Your task to perform on an android device: turn on translation in the chrome app Image 0: 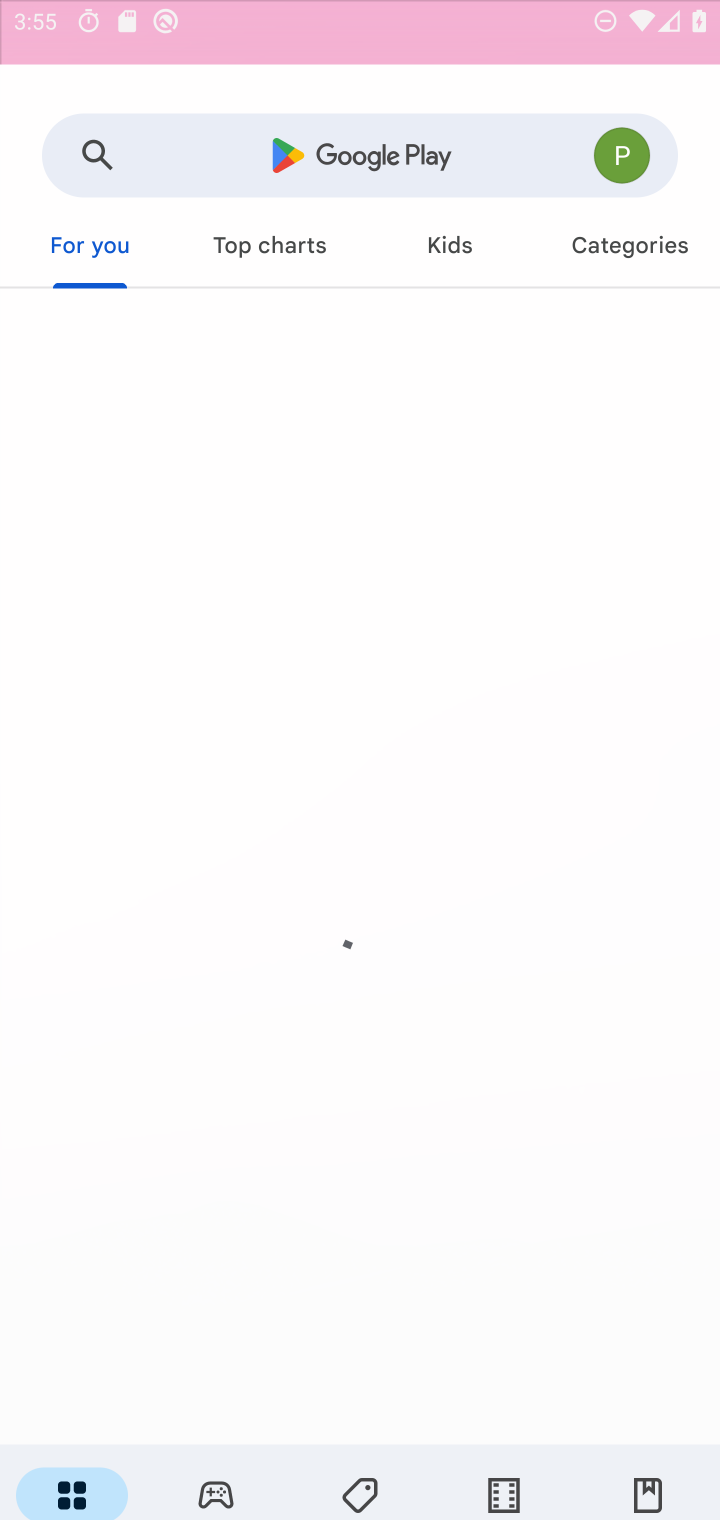
Step 0: click (649, 86)
Your task to perform on an android device: turn on translation in the chrome app Image 1: 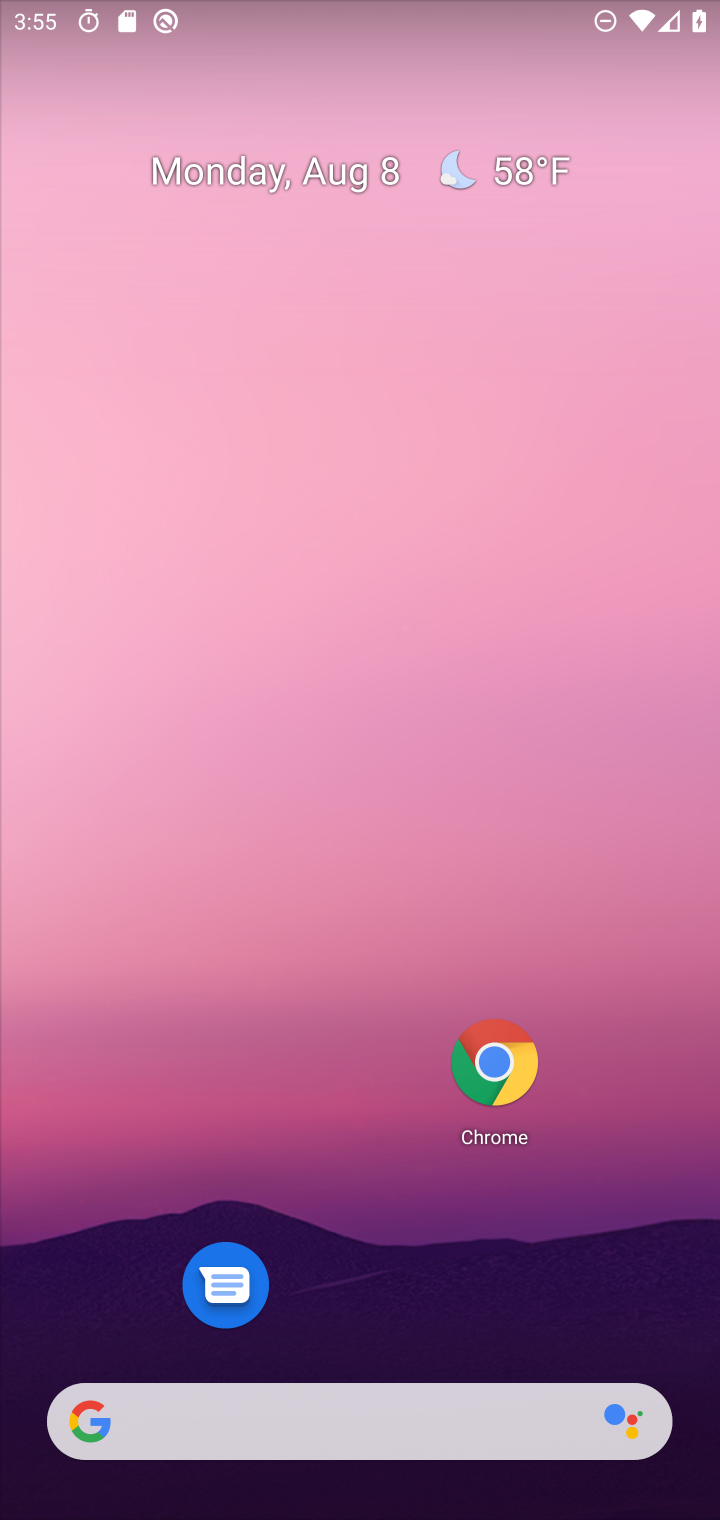
Step 1: click (499, 1057)
Your task to perform on an android device: turn on translation in the chrome app Image 2: 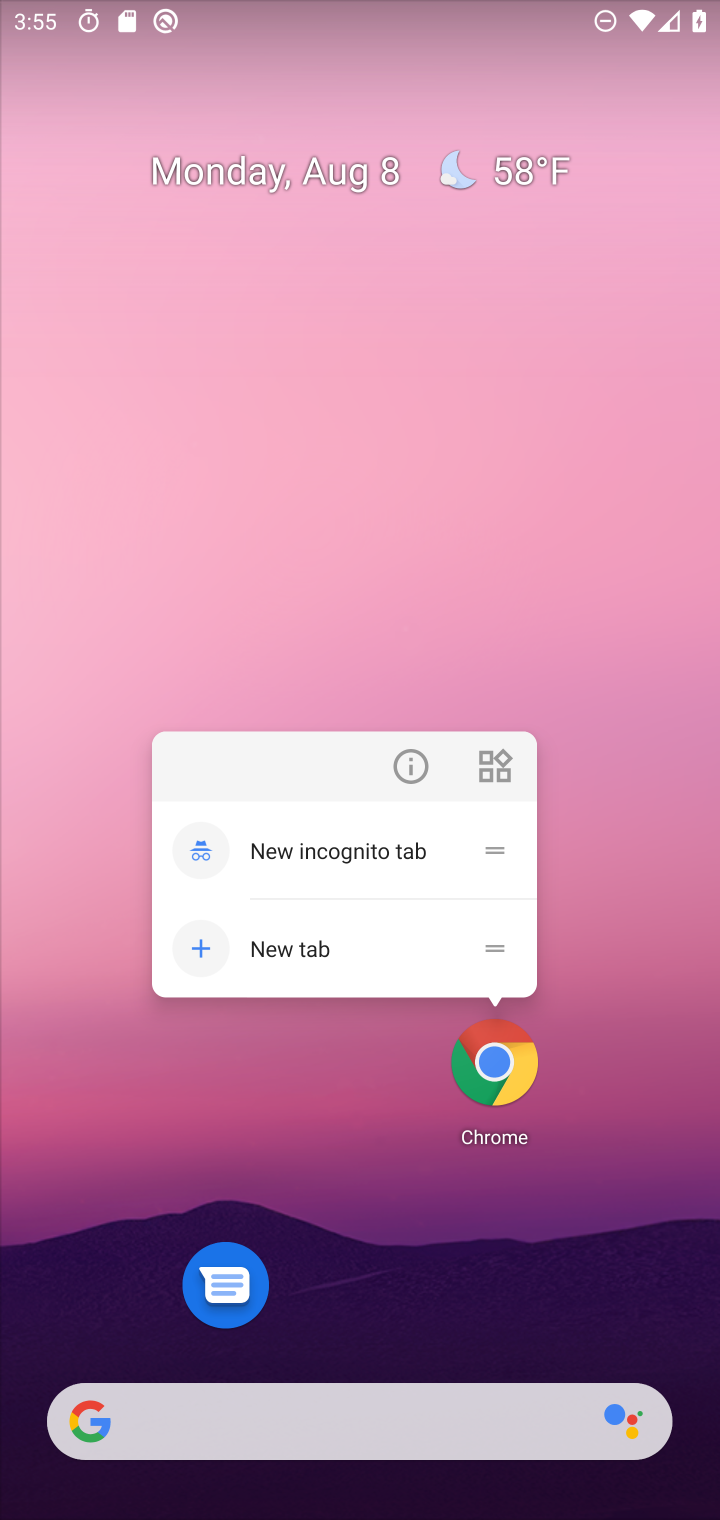
Step 2: click (498, 1051)
Your task to perform on an android device: turn on translation in the chrome app Image 3: 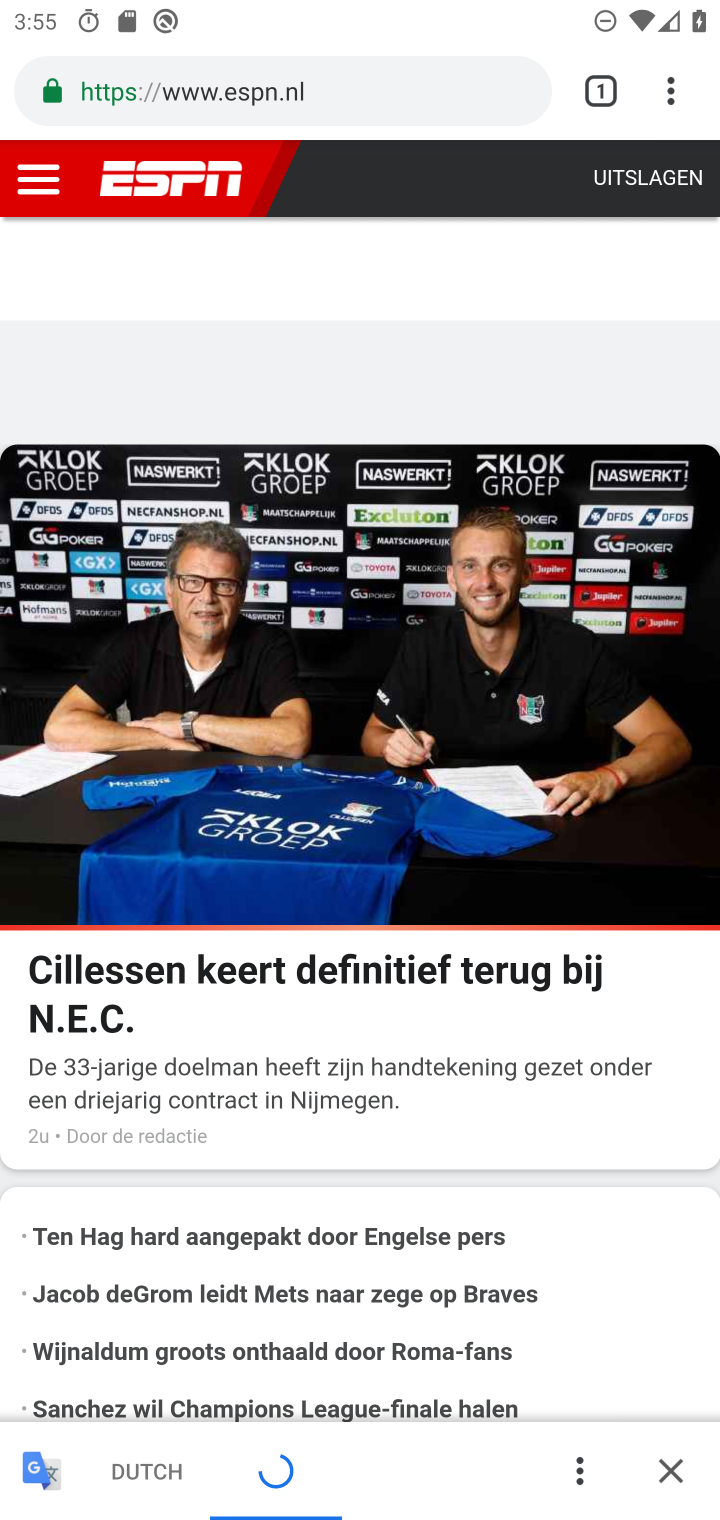
Step 3: click (602, 86)
Your task to perform on an android device: turn on translation in the chrome app Image 4: 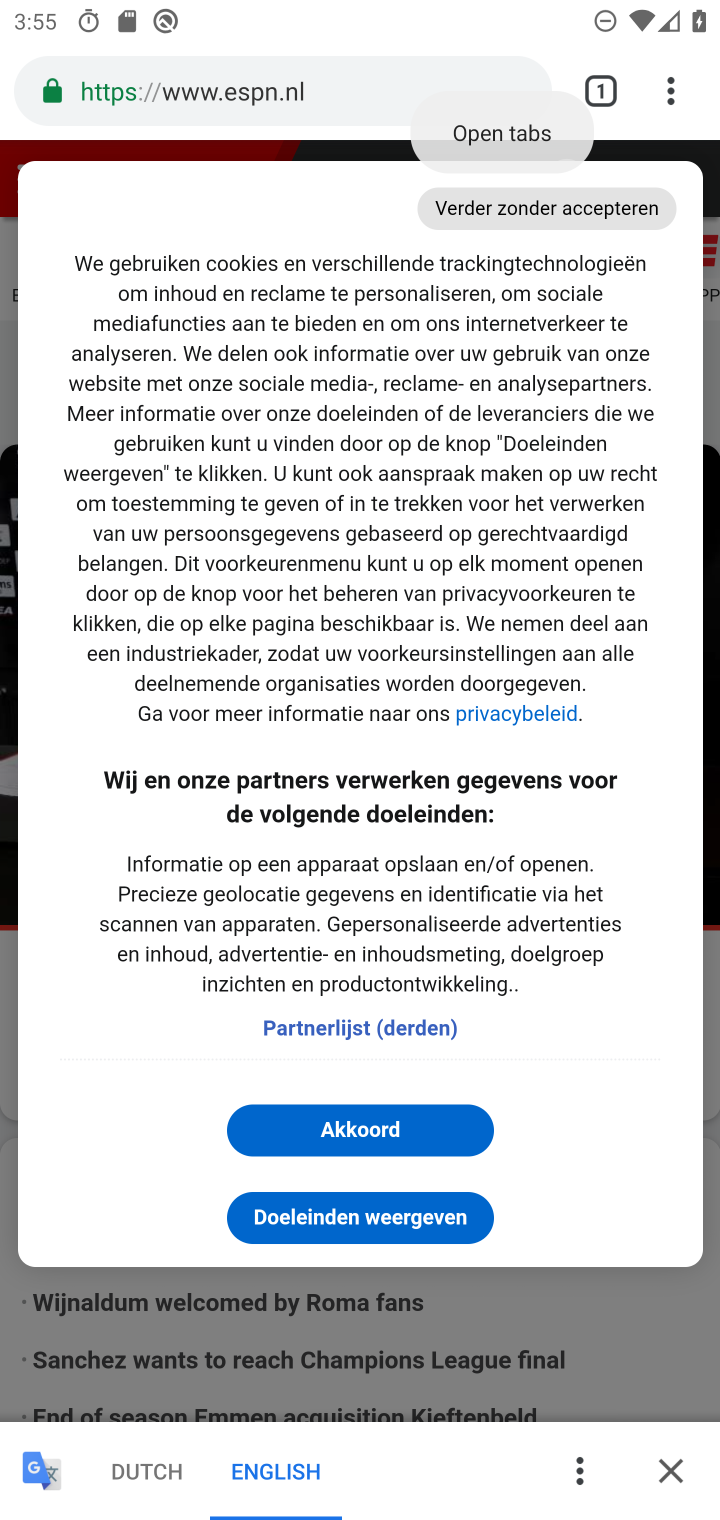
Step 4: click (610, 80)
Your task to perform on an android device: turn on translation in the chrome app Image 5: 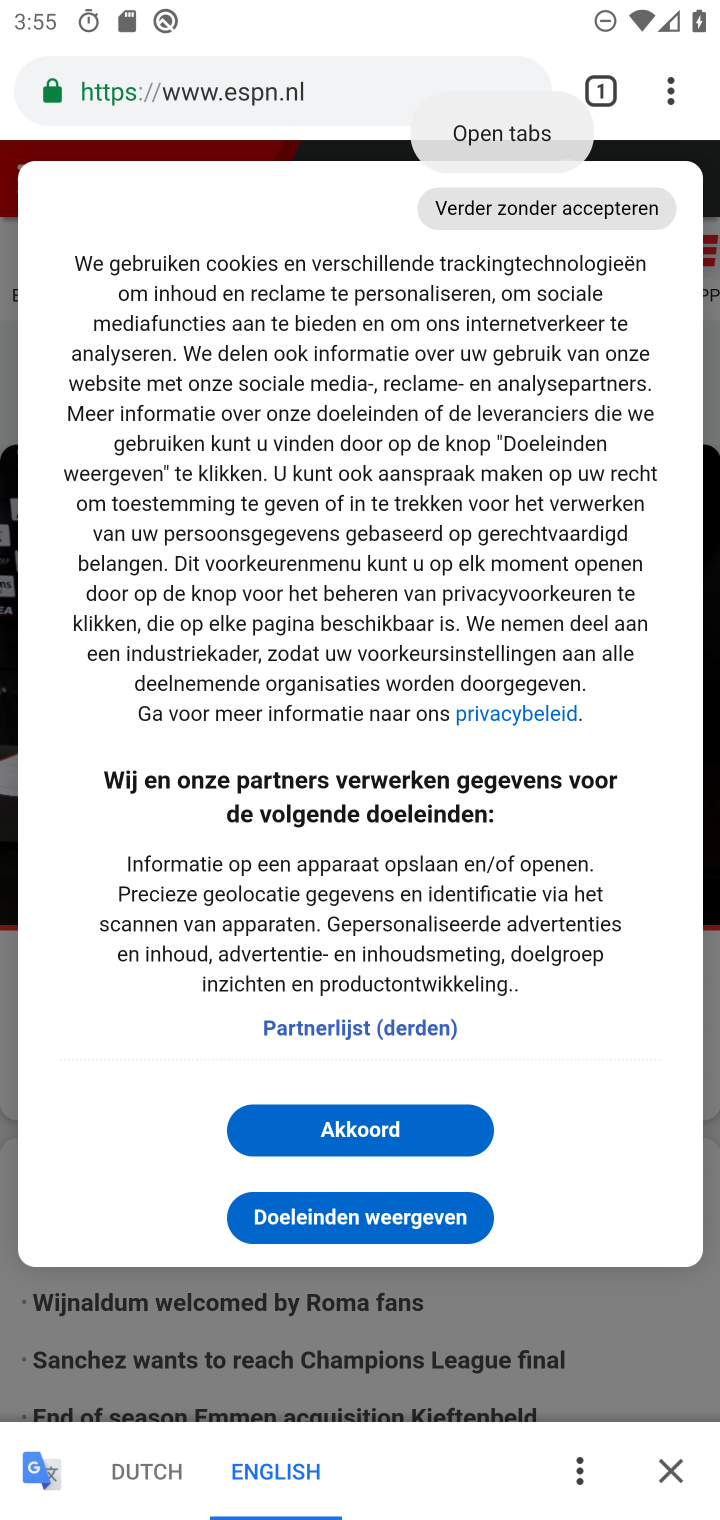
Step 5: click (614, 73)
Your task to perform on an android device: turn on translation in the chrome app Image 6: 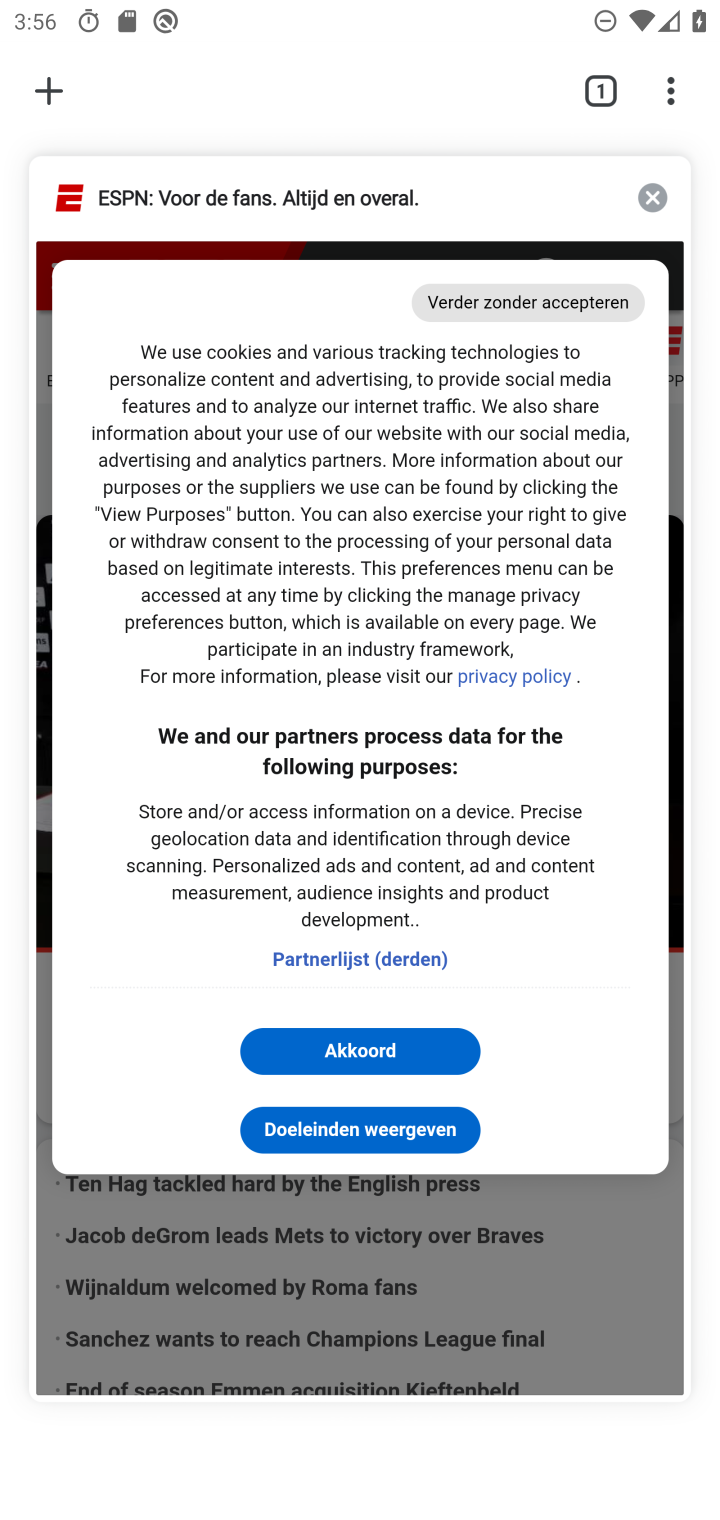
Step 6: click (63, 93)
Your task to perform on an android device: turn on translation in the chrome app Image 7: 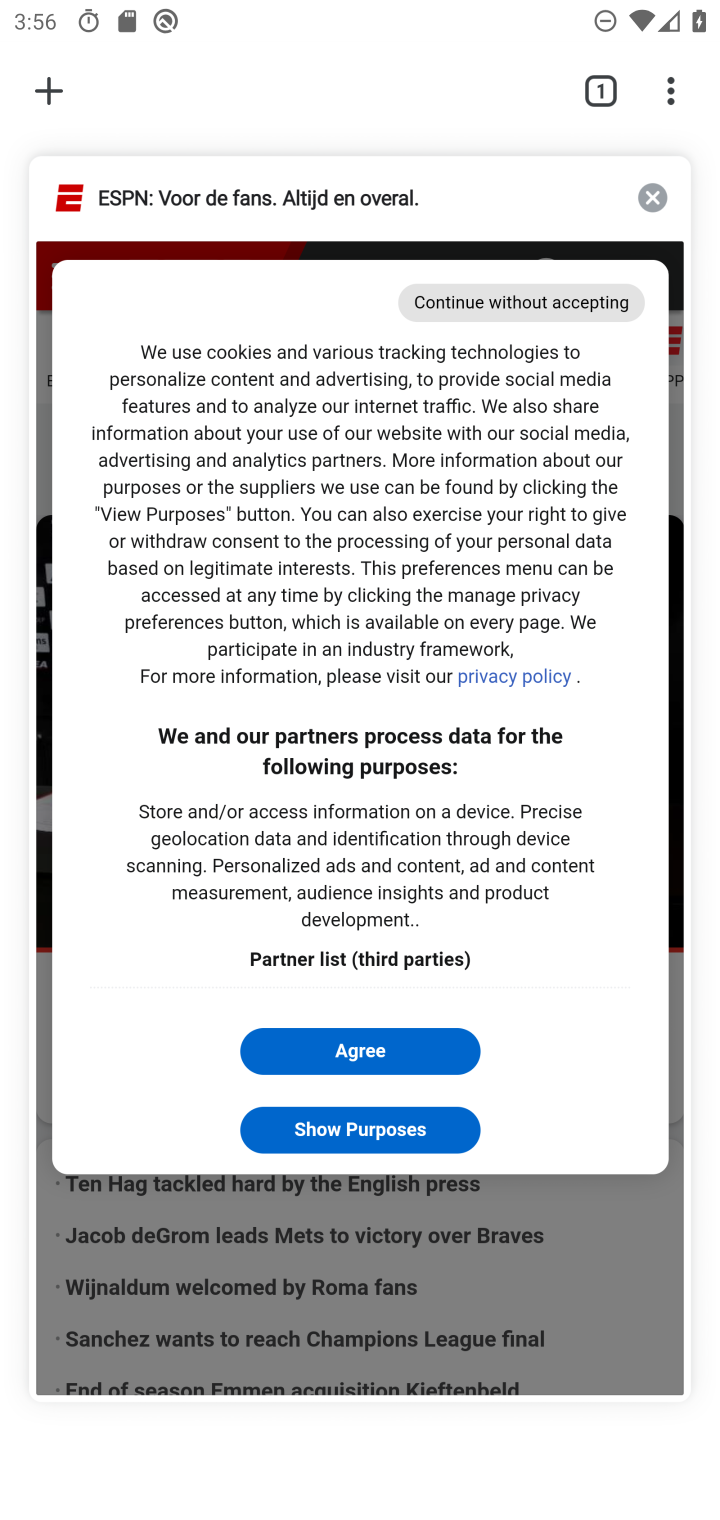
Step 7: click (47, 87)
Your task to perform on an android device: turn on translation in the chrome app Image 8: 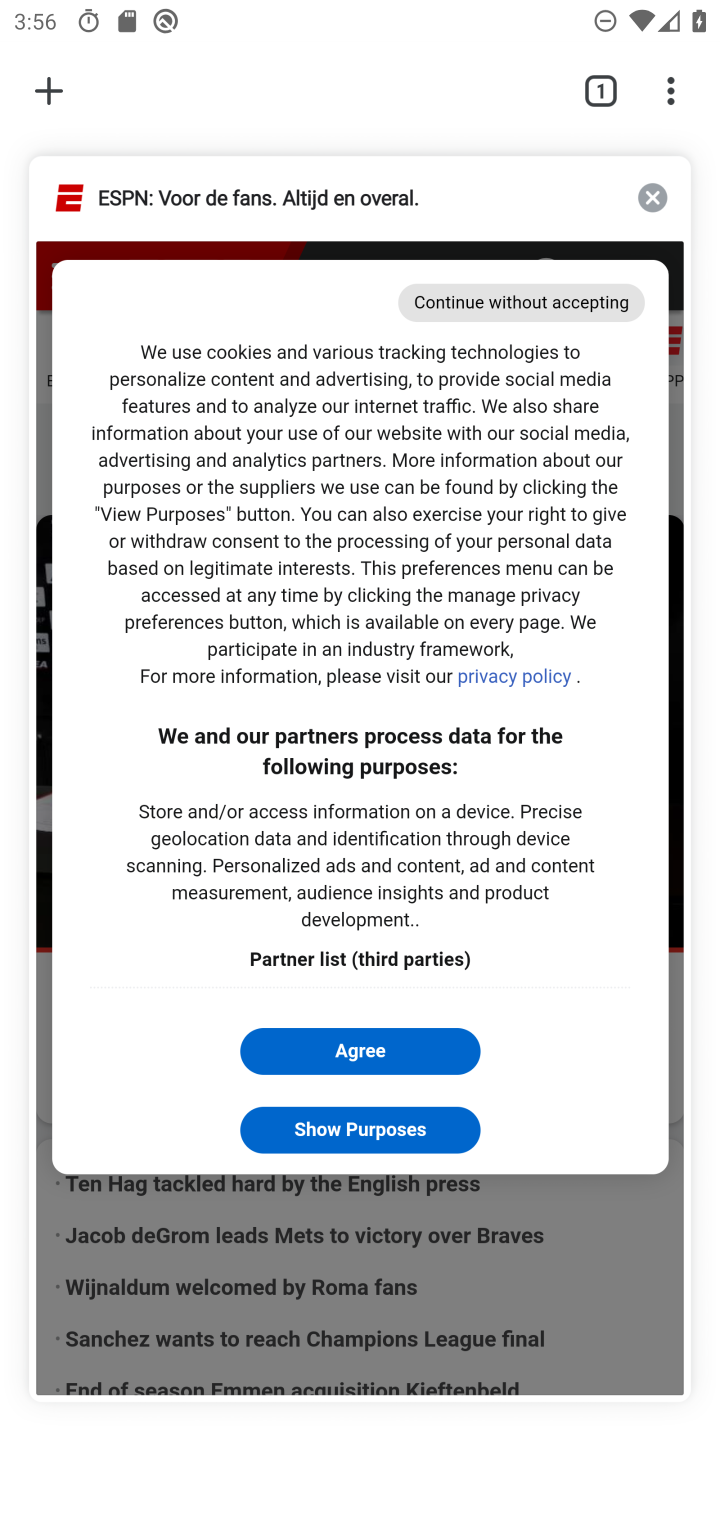
Step 8: click (47, 87)
Your task to perform on an android device: turn on translation in the chrome app Image 9: 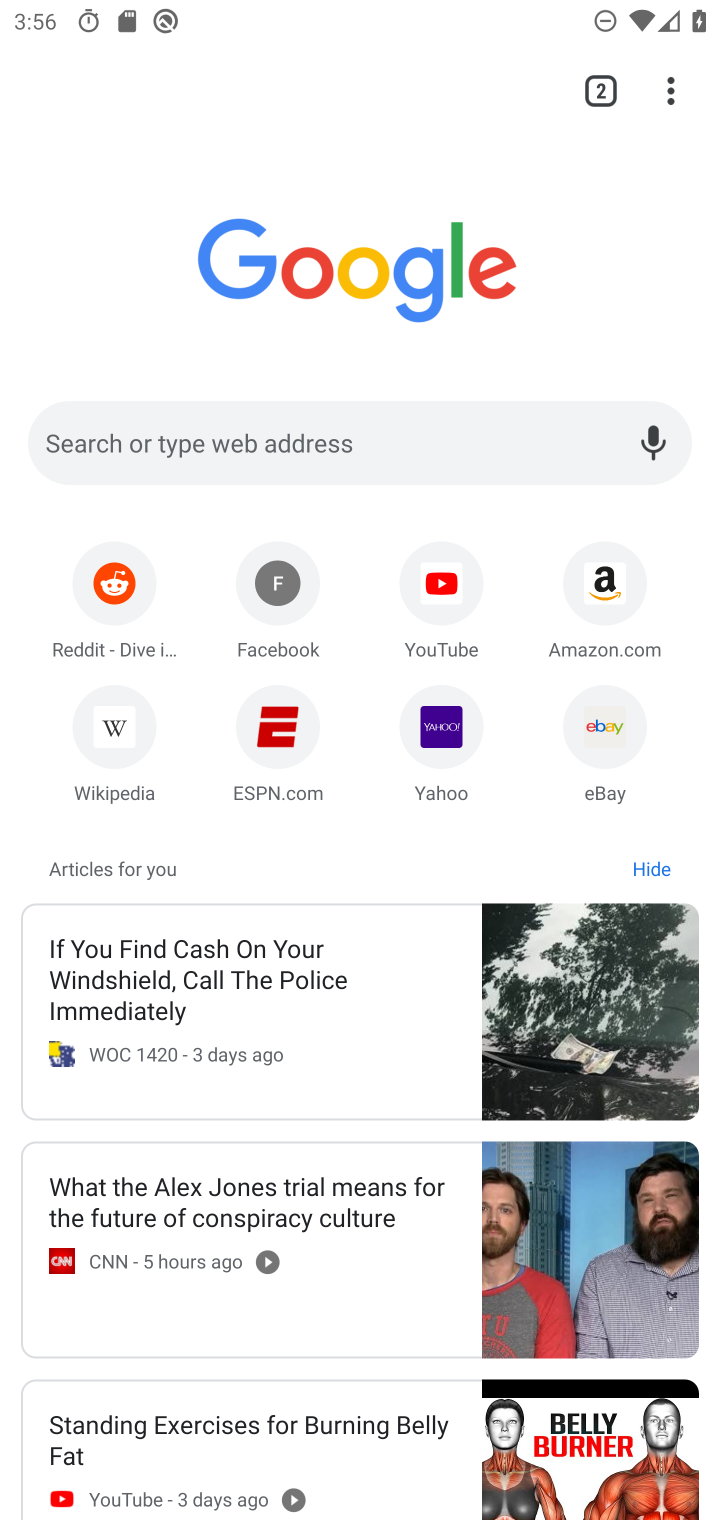
Step 9: click (125, 575)
Your task to perform on an android device: turn on translation in the chrome app Image 10: 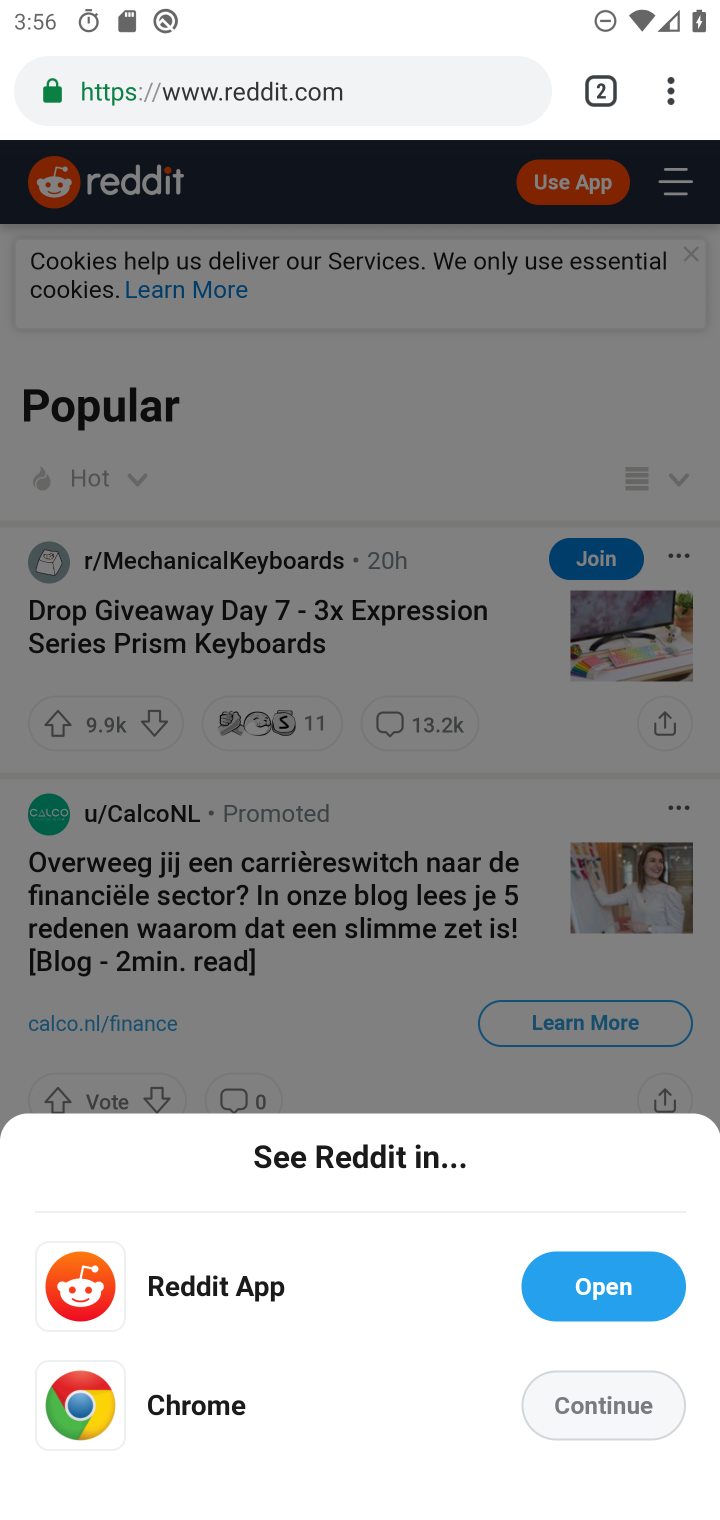
Step 10: drag from (680, 78) to (364, 1200)
Your task to perform on an android device: turn on translation in the chrome app Image 11: 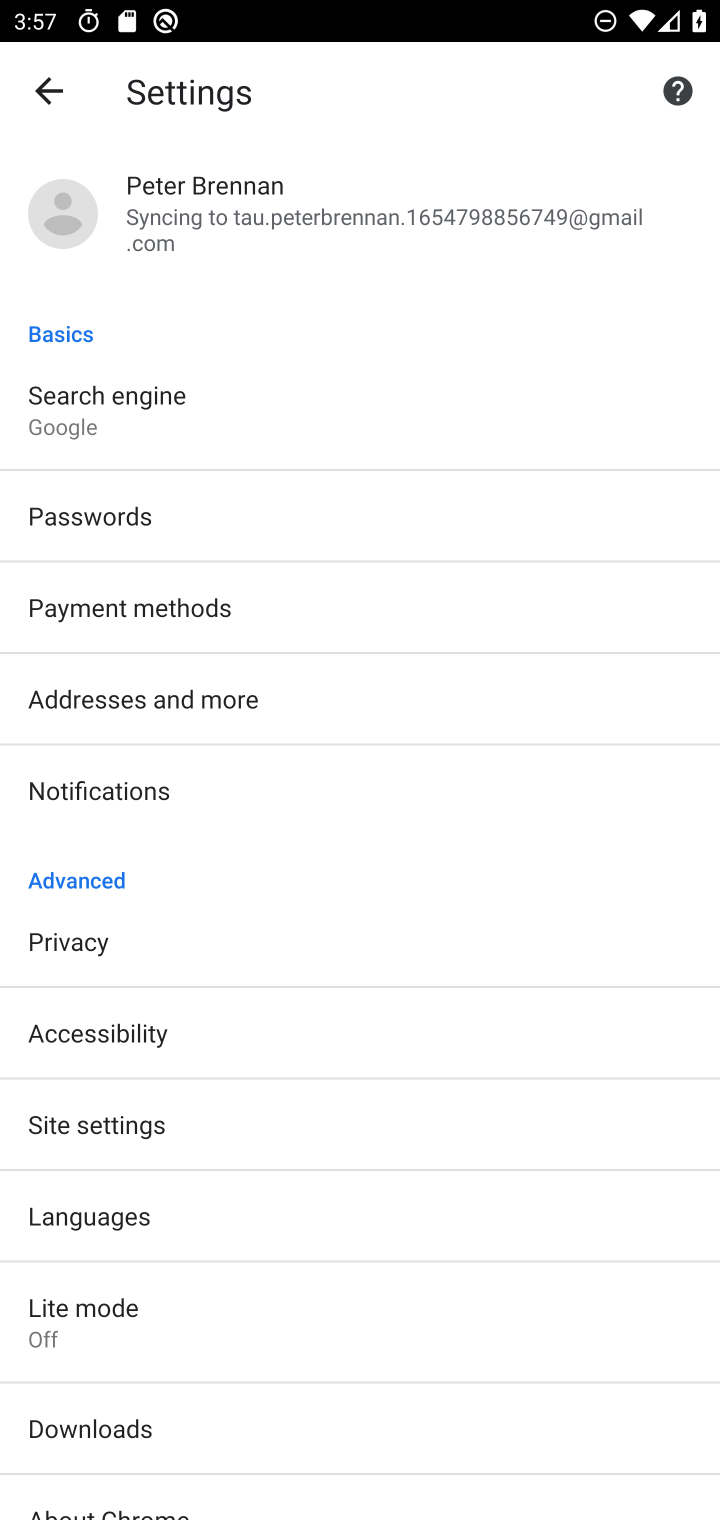
Step 11: click (114, 1225)
Your task to perform on an android device: turn on translation in the chrome app Image 12: 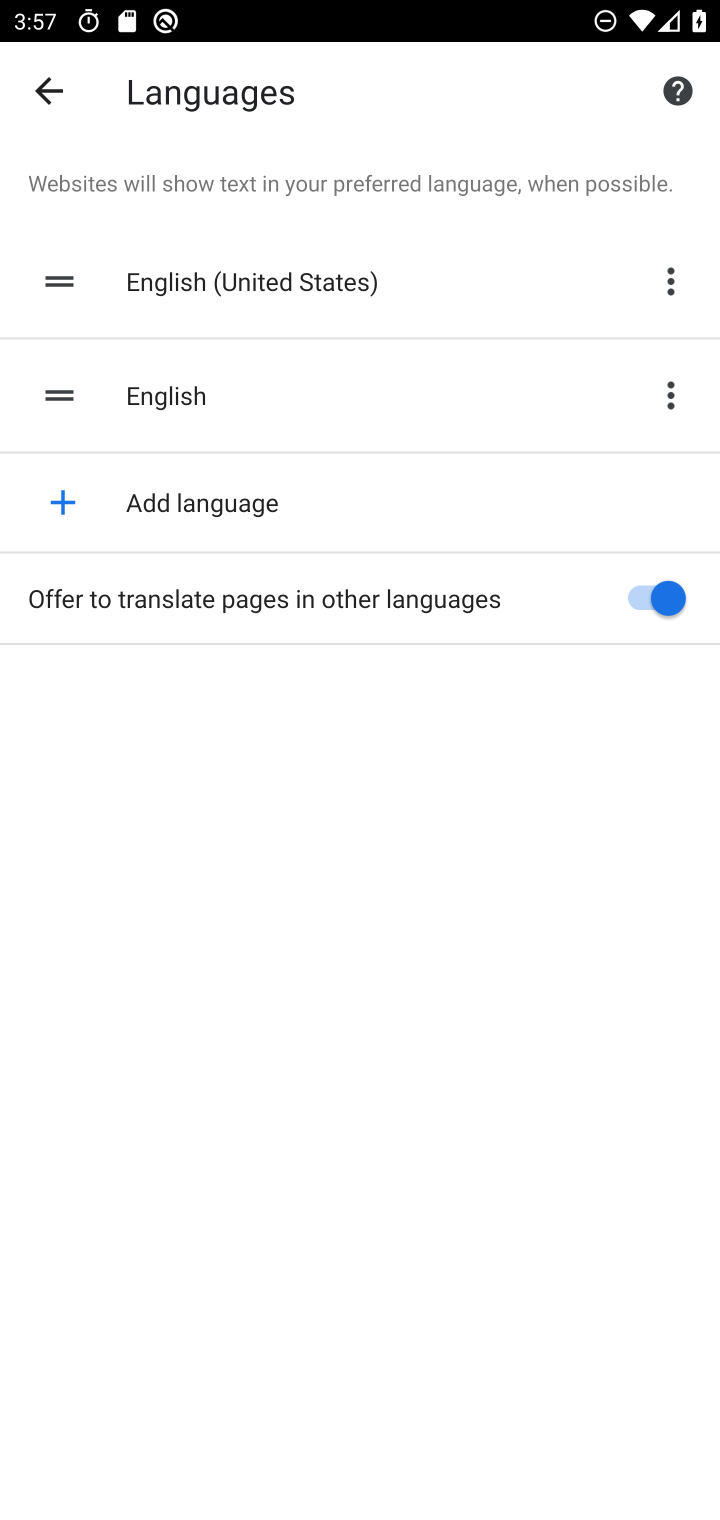
Step 12: task complete